Your task to perform on an android device: turn notification dots on Image 0: 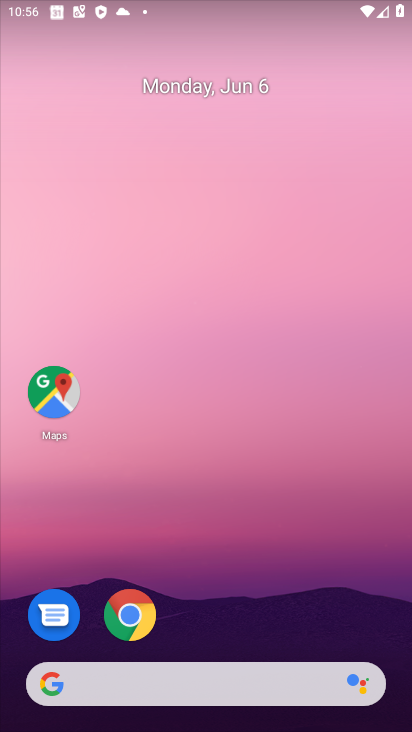
Step 0: drag from (343, 612) to (227, 121)
Your task to perform on an android device: turn notification dots on Image 1: 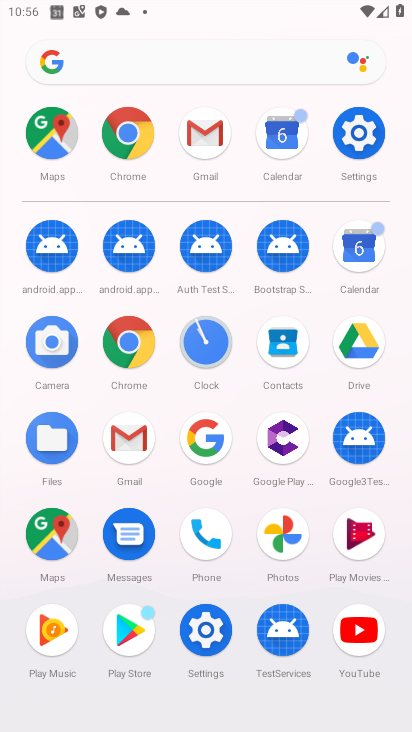
Step 1: click (362, 146)
Your task to perform on an android device: turn notification dots on Image 2: 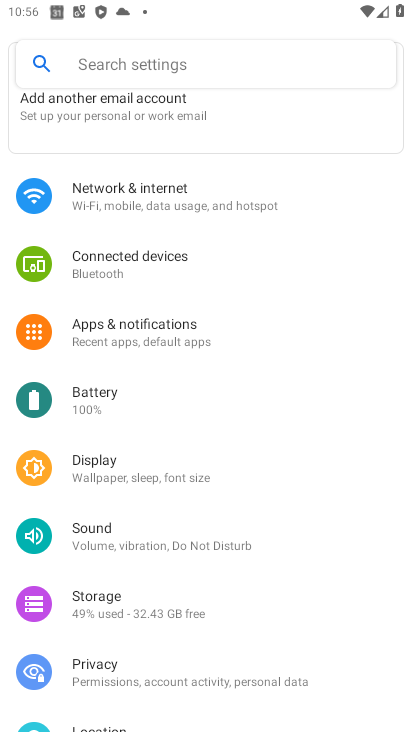
Step 2: click (207, 354)
Your task to perform on an android device: turn notification dots on Image 3: 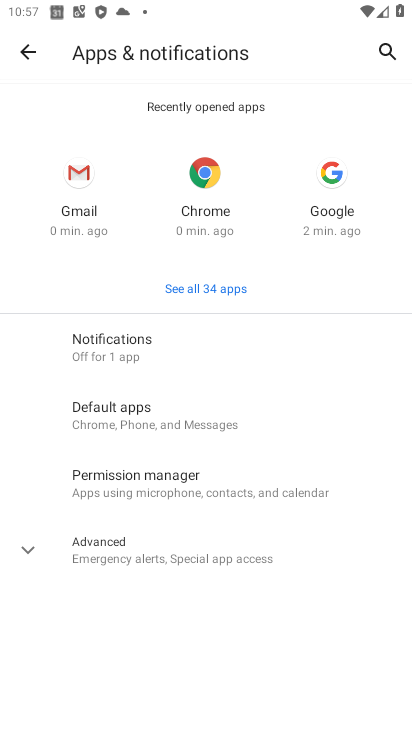
Step 3: task complete